Your task to perform on an android device: open device folders in google photos Image 0: 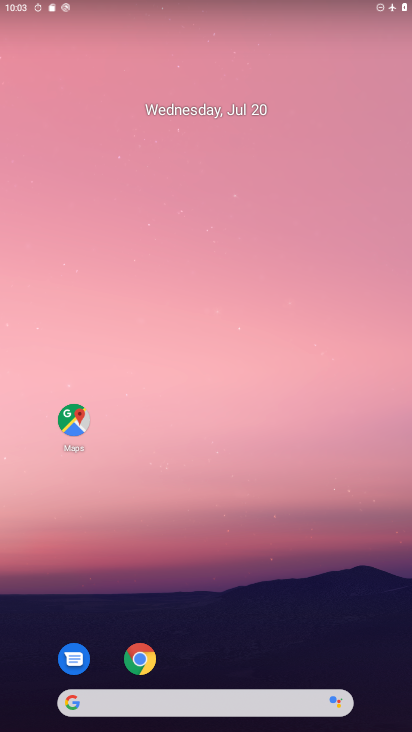
Step 0: drag from (284, 577) to (293, 3)
Your task to perform on an android device: open device folders in google photos Image 1: 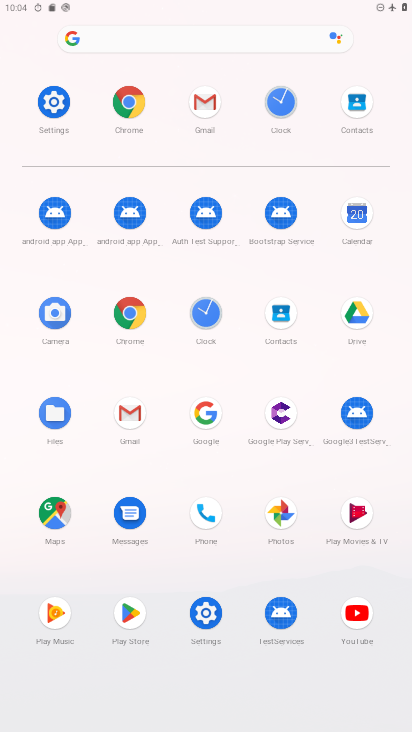
Step 1: click (285, 511)
Your task to perform on an android device: open device folders in google photos Image 2: 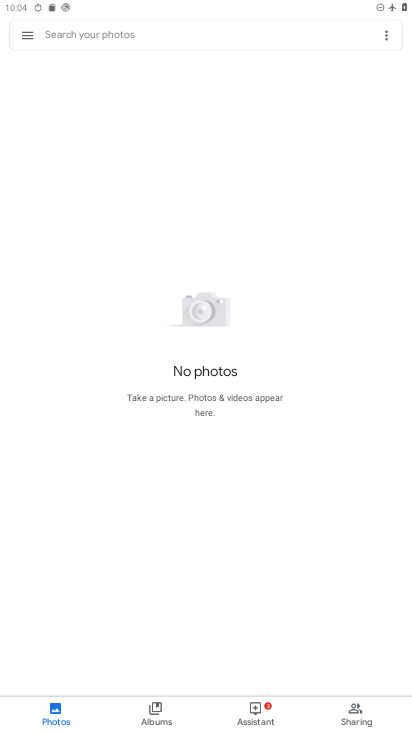
Step 2: click (12, 29)
Your task to perform on an android device: open device folders in google photos Image 3: 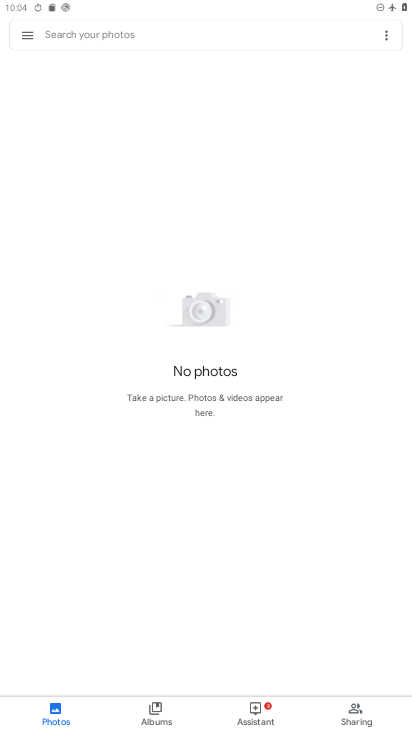
Step 3: click (22, 34)
Your task to perform on an android device: open device folders in google photos Image 4: 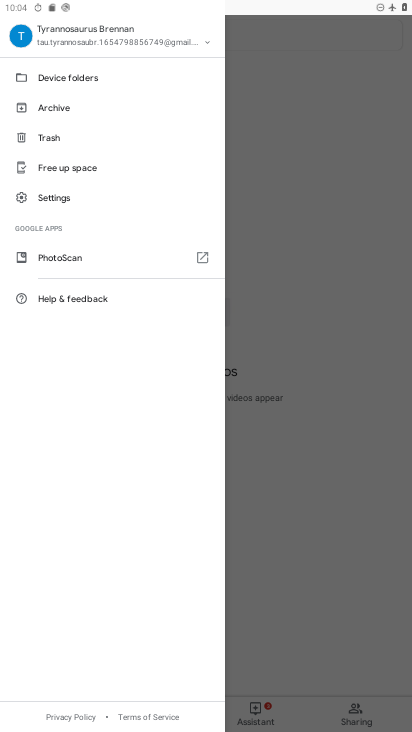
Step 4: click (76, 79)
Your task to perform on an android device: open device folders in google photos Image 5: 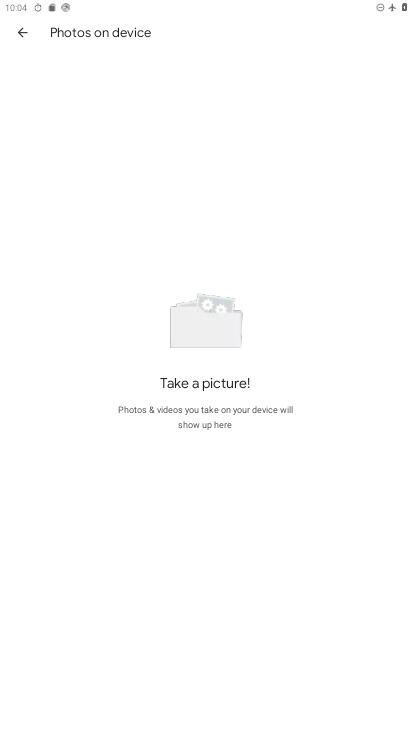
Step 5: task complete